Your task to perform on an android device: Look up the best rated gaming chair on Target. Image 0: 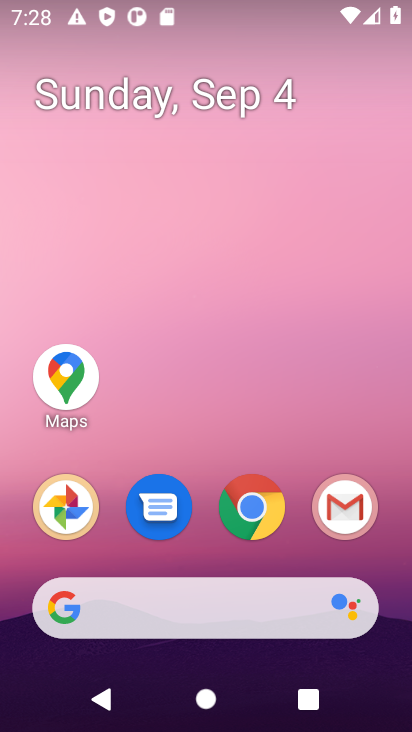
Step 0: click (261, 506)
Your task to perform on an android device: Look up the best rated gaming chair on Target. Image 1: 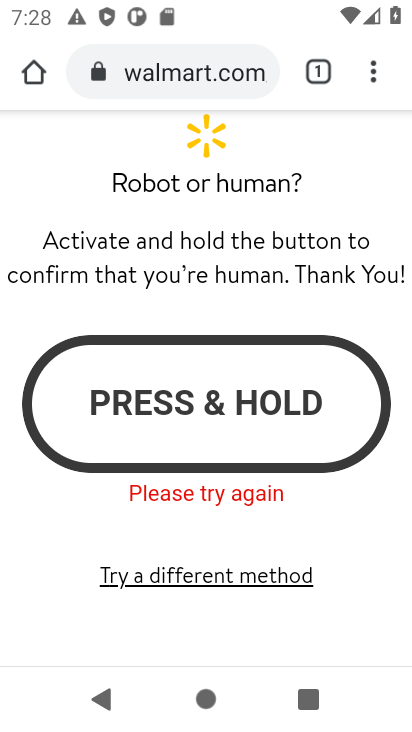
Step 1: click (182, 68)
Your task to perform on an android device: Look up the best rated gaming chair on Target. Image 2: 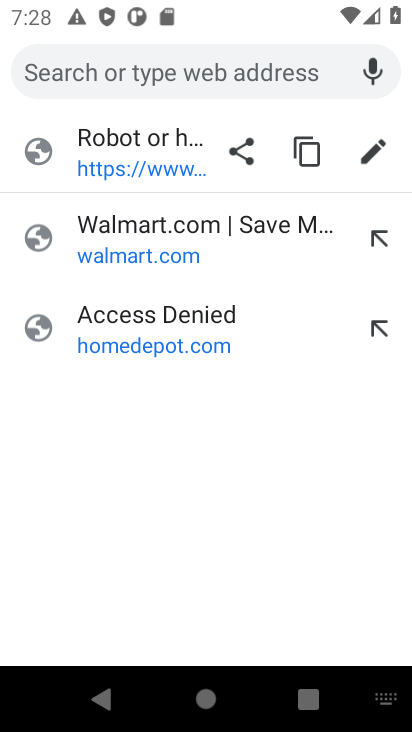
Step 2: type "target"
Your task to perform on an android device: Look up the best rated gaming chair on Target. Image 3: 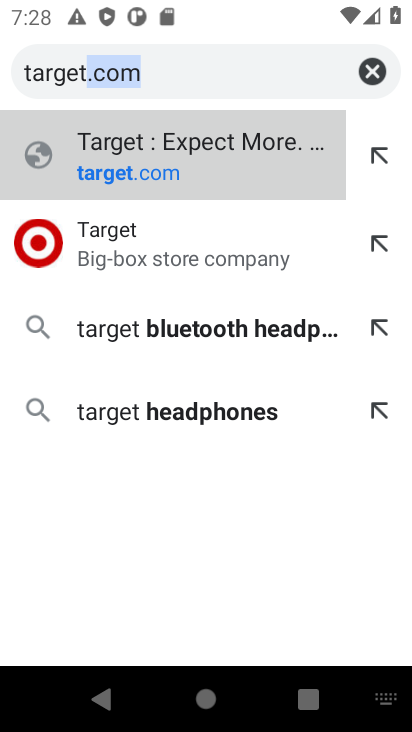
Step 3: click (187, 168)
Your task to perform on an android device: Look up the best rated gaming chair on Target. Image 4: 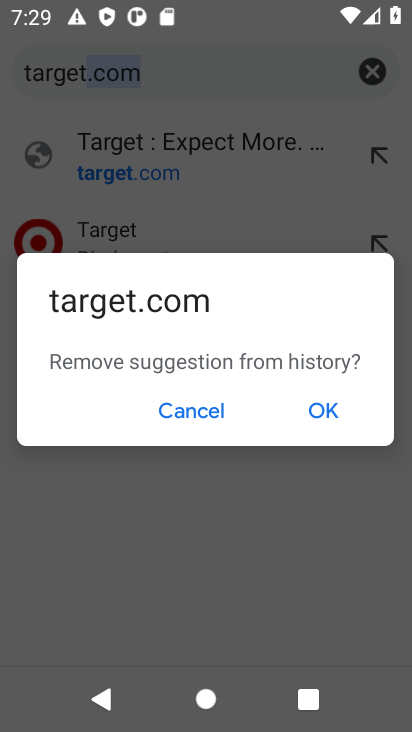
Step 4: click (220, 415)
Your task to perform on an android device: Look up the best rated gaming chair on Target. Image 5: 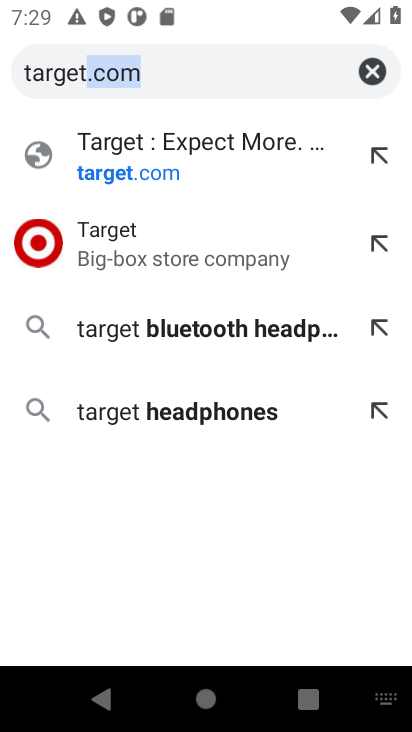
Step 5: click (221, 185)
Your task to perform on an android device: Look up the best rated gaming chair on Target. Image 6: 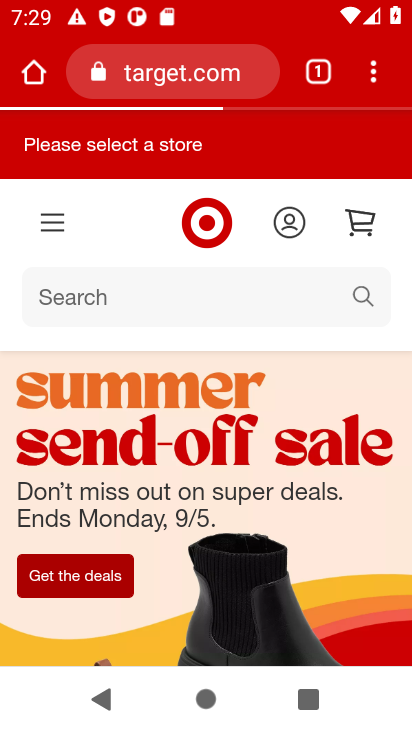
Step 6: click (246, 285)
Your task to perform on an android device: Look up the best rated gaming chair on Target. Image 7: 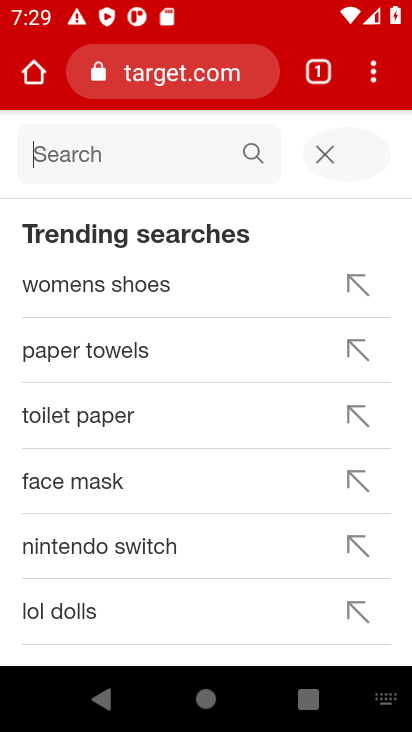
Step 7: type "best rated gaming chair"
Your task to perform on an android device: Look up the best rated gaming chair on Target. Image 8: 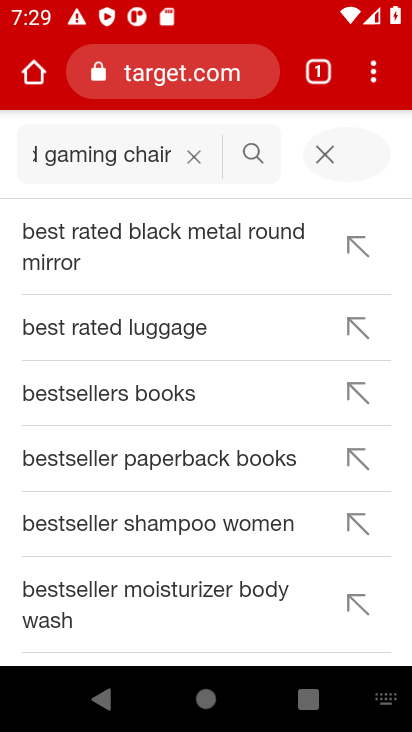
Step 8: press enter
Your task to perform on an android device: Look up the best rated gaming chair on Target. Image 9: 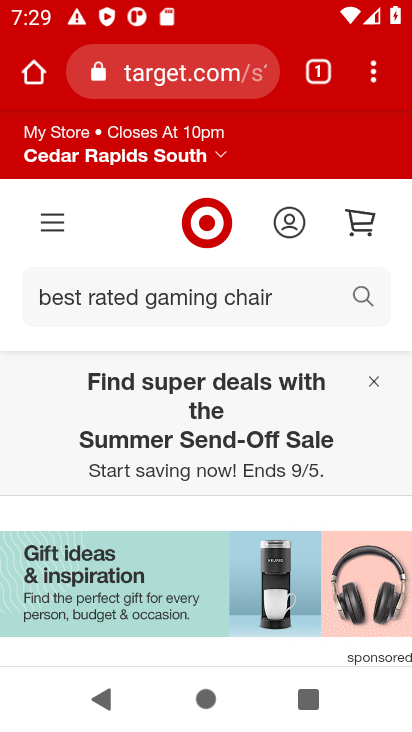
Step 9: task complete